Your task to perform on an android device: Open Wikipedia Image 0: 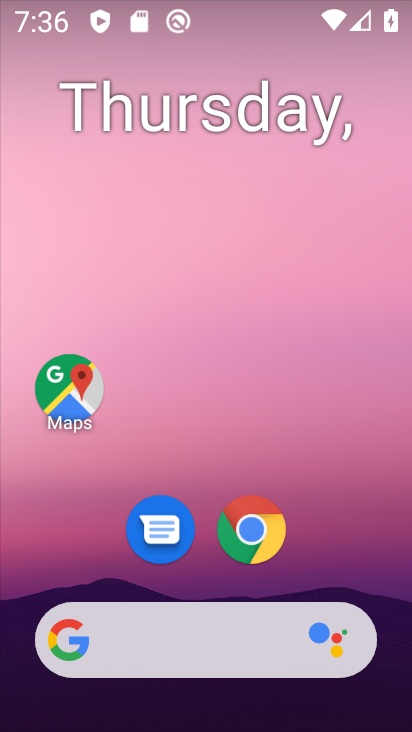
Step 0: drag from (396, 672) to (399, 222)
Your task to perform on an android device: Open Wikipedia Image 1: 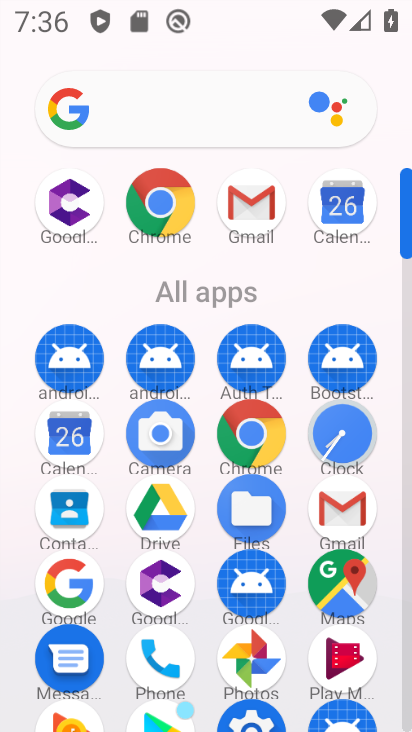
Step 1: click (147, 202)
Your task to perform on an android device: Open Wikipedia Image 2: 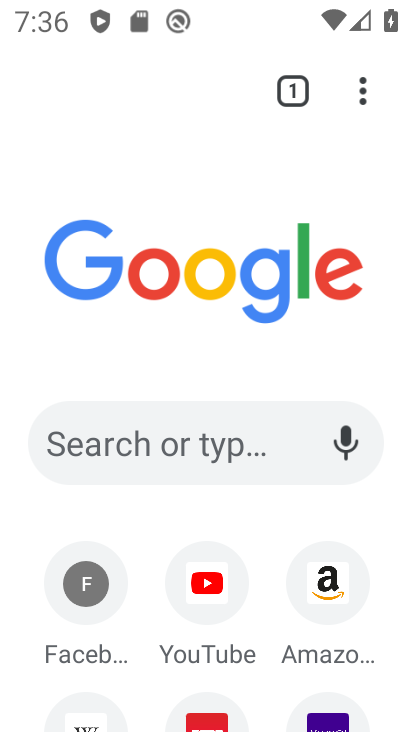
Step 2: click (210, 442)
Your task to perform on an android device: Open Wikipedia Image 3: 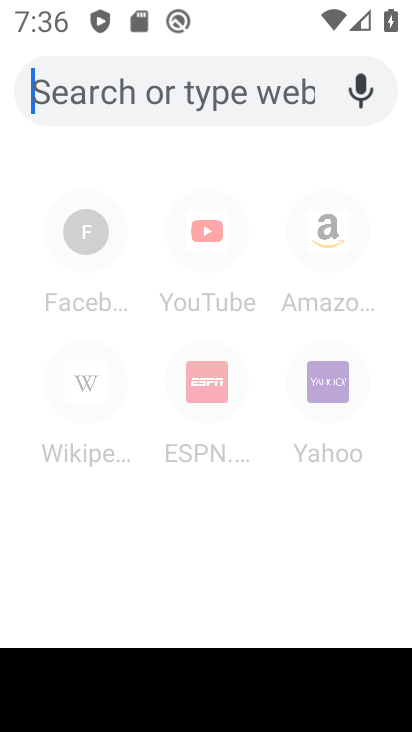
Step 3: type "Wikipedia"
Your task to perform on an android device: Open Wikipedia Image 4: 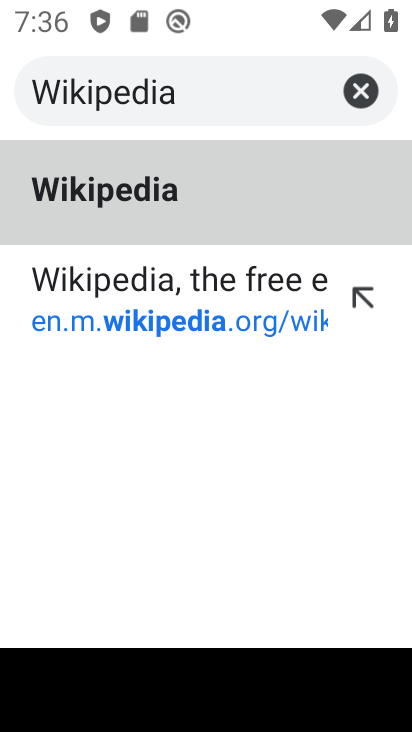
Step 4: click (96, 194)
Your task to perform on an android device: Open Wikipedia Image 5: 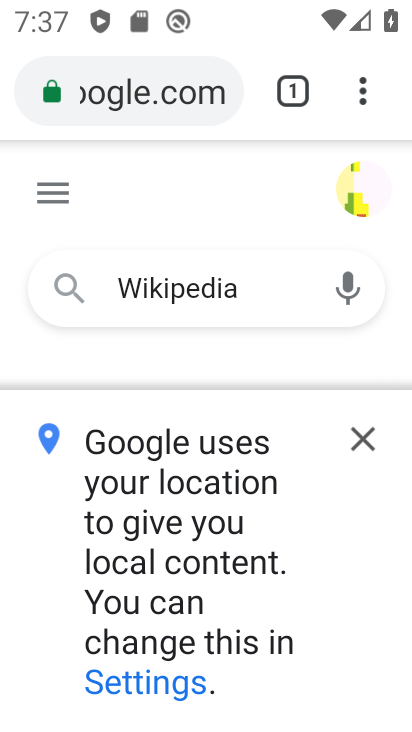
Step 5: click (357, 443)
Your task to perform on an android device: Open Wikipedia Image 6: 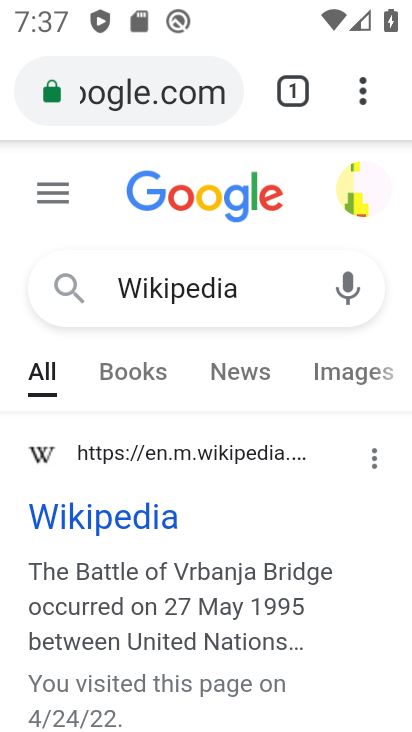
Step 6: task complete